Your task to perform on an android device: turn pop-ups on in chrome Image 0: 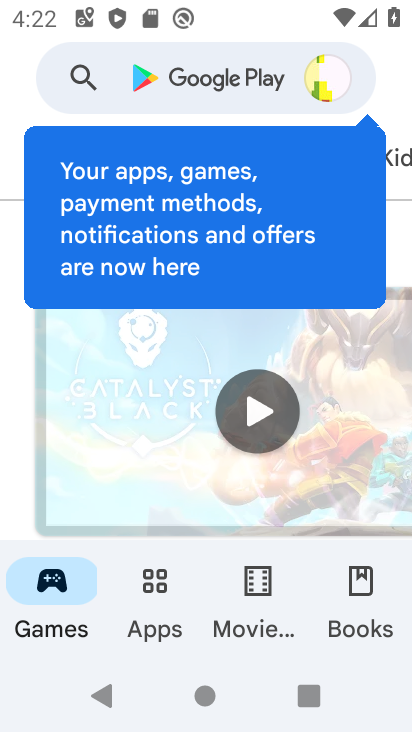
Step 0: press home button
Your task to perform on an android device: turn pop-ups on in chrome Image 1: 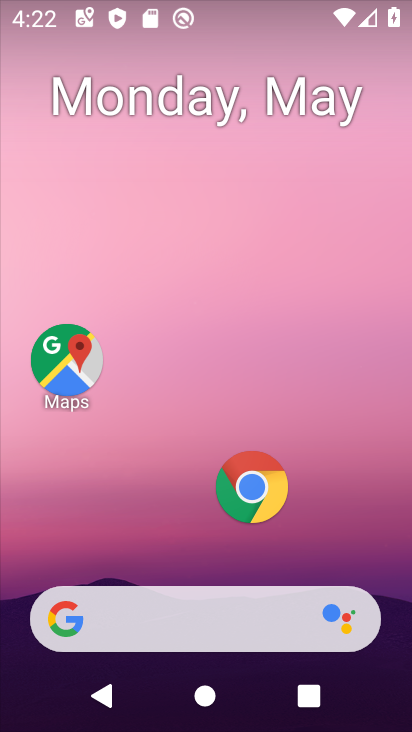
Step 1: click (241, 490)
Your task to perform on an android device: turn pop-ups on in chrome Image 2: 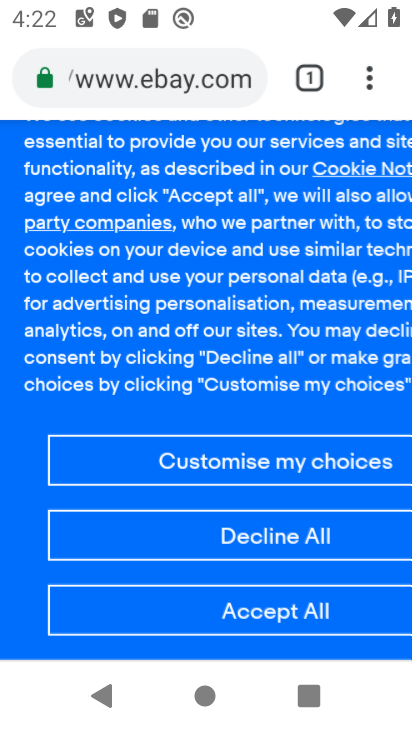
Step 2: click (363, 74)
Your task to perform on an android device: turn pop-ups on in chrome Image 3: 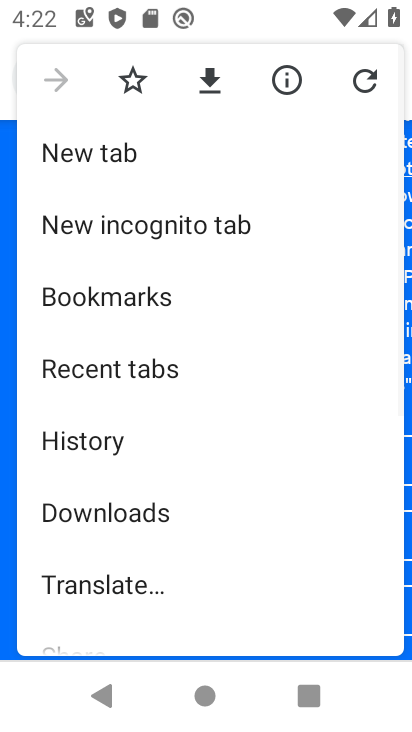
Step 3: drag from (191, 607) to (202, 188)
Your task to perform on an android device: turn pop-ups on in chrome Image 4: 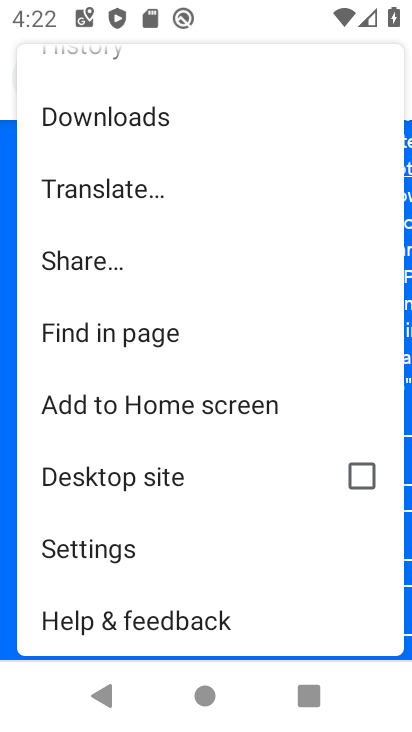
Step 4: click (104, 551)
Your task to perform on an android device: turn pop-ups on in chrome Image 5: 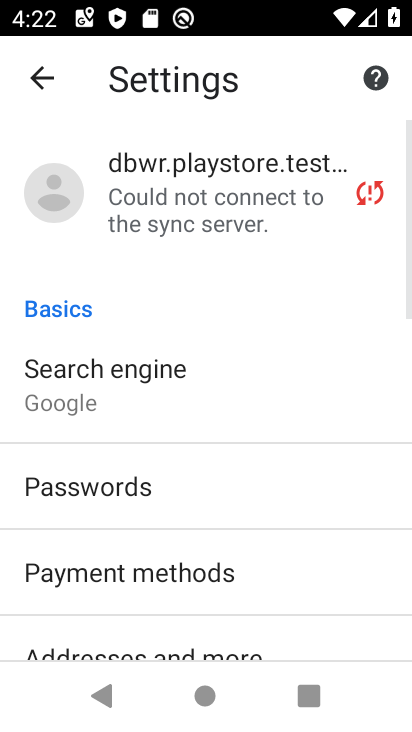
Step 5: drag from (294, 488) to (301, 174)
Your task to perform on an android device: turn pop-ups on in chrome Image 6: 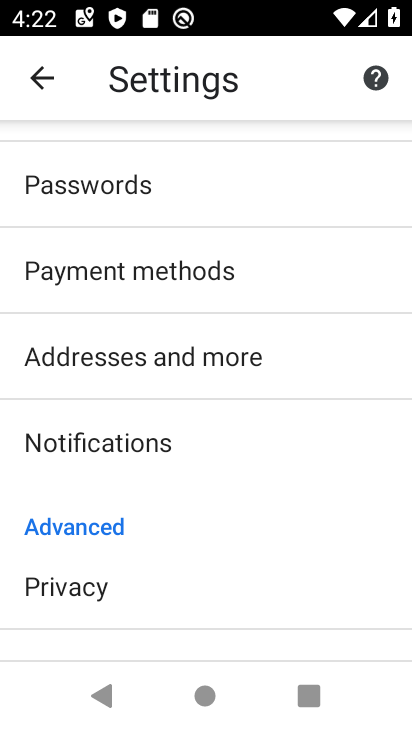
Step 6: drag from (145, 601) to (172, 278)
Your task to perform on an android device: turn pop-ups on in chrome Image 7: 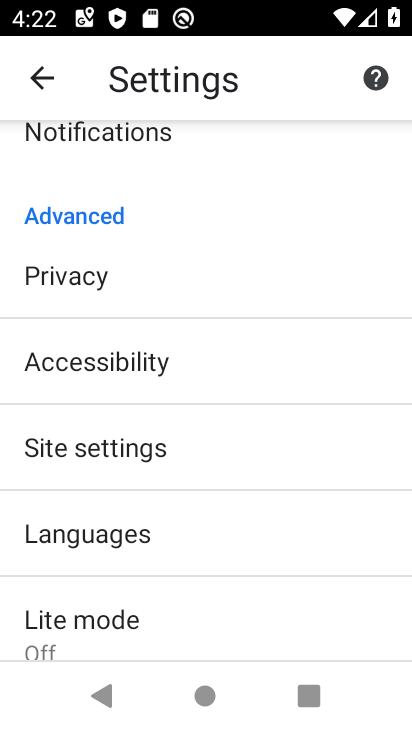
Step 7: click (117, 456)
Your task to perform on an android device: turn pop-ups on in chrome Image 8: 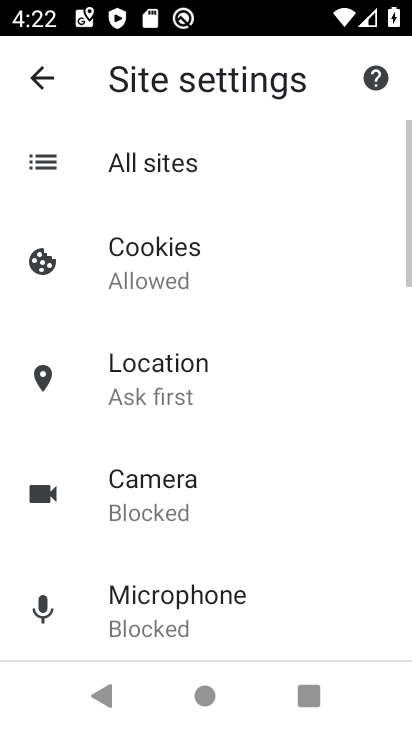
Step 8: drag from (331, 535) to (336, 209)
Your task to perform on an android device: turn pop-ups on in chrome Image 9: 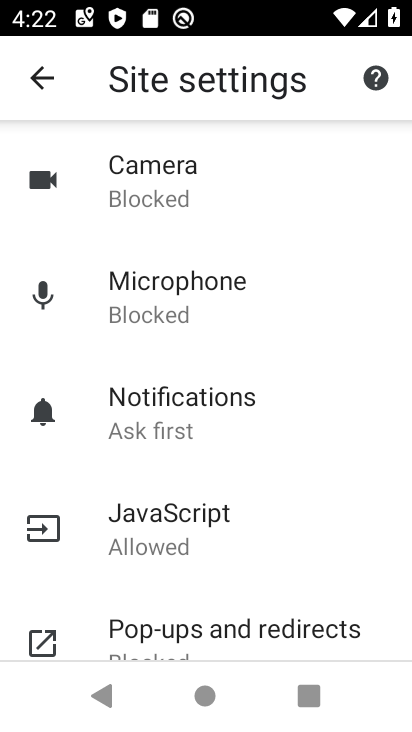
Step 9: click (245, 637)
Your task to perform on an android device: turn pop-ups on in chrome Image 10: 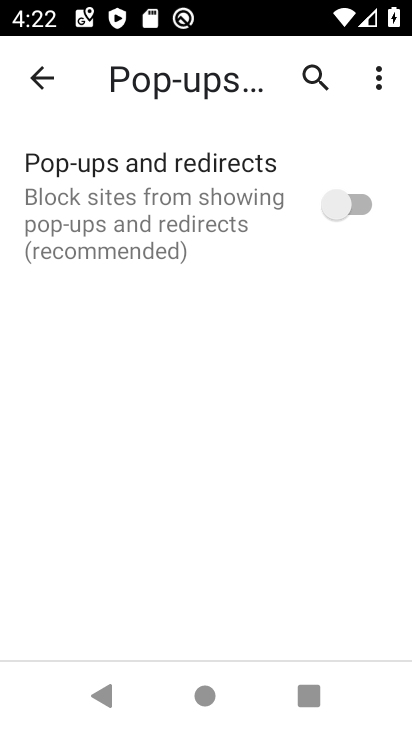
Step 10: click (339, 210)
Your task to perform on an android device: turn pop-ups on in chrome Image 11: 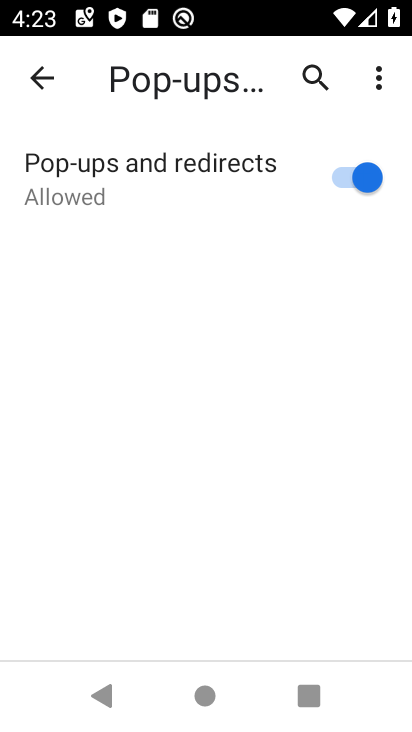
Step 11: task complete